Your task to perform on an android device: Go to settings Image 0: 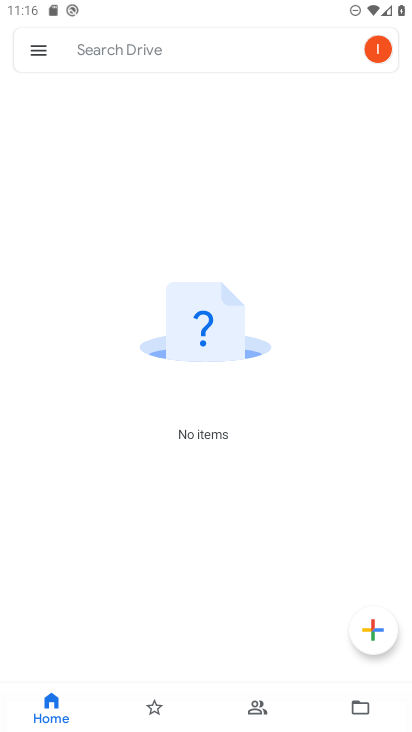
Step 0: press home button
Your task to perform on an android device: Go to settings Image 1: 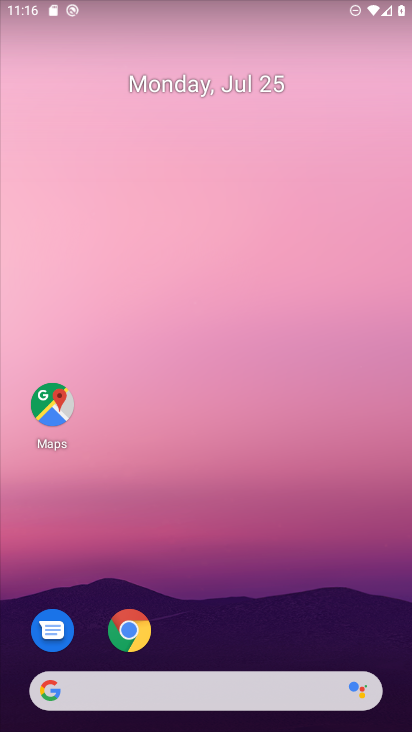
Step 1: drag from (234, 662) to (208, 68)
Your task to perform on an android device: Go to settings Image 2: 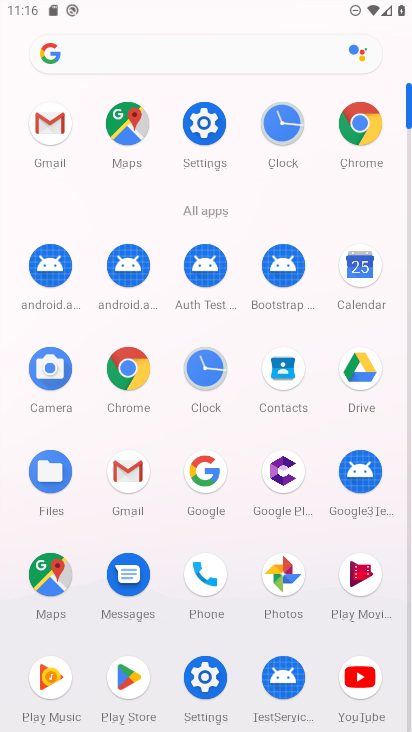
Step 2: click (204, 129)
Your task to perform on an android device: Go to settings Image 3: 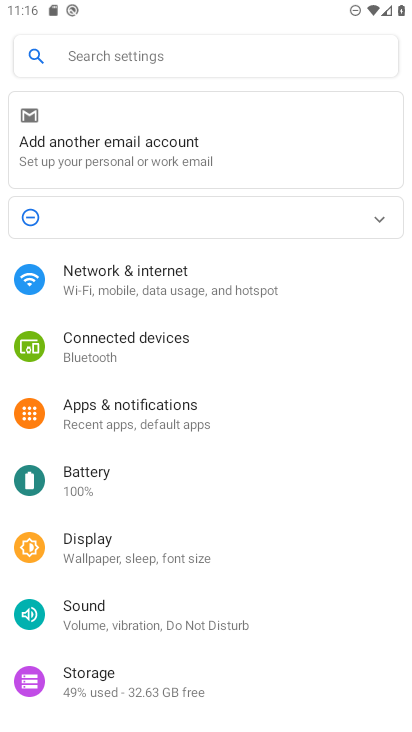
Step 3: task complete